Your task to perform on an android device: turn pop-ups on in chrome Image 0: 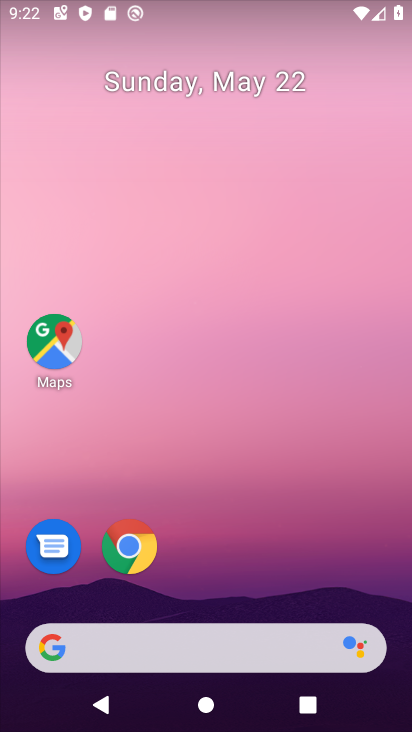
Step 0: drag from (184, 601) to (200, 251)
Your task to perform on an android device: turn pop-ups on in chrome Image 1: 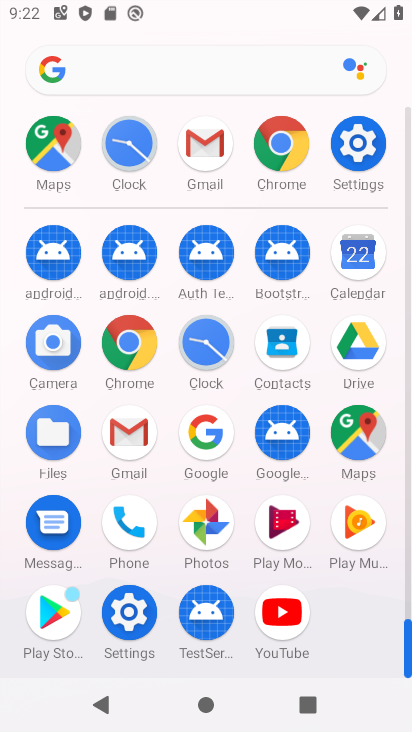
Step 1: drag from (247, 672) to (235, 344)
Your task to perform on an android device: turn pop-ups on in chrome Image 2: 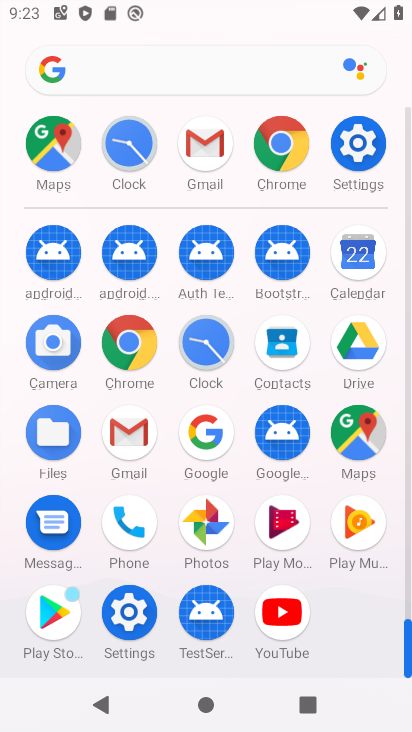
Step 2: click (119, 344)
Your task to perform on an android device: turn pop-ups on in chrome Image 3: 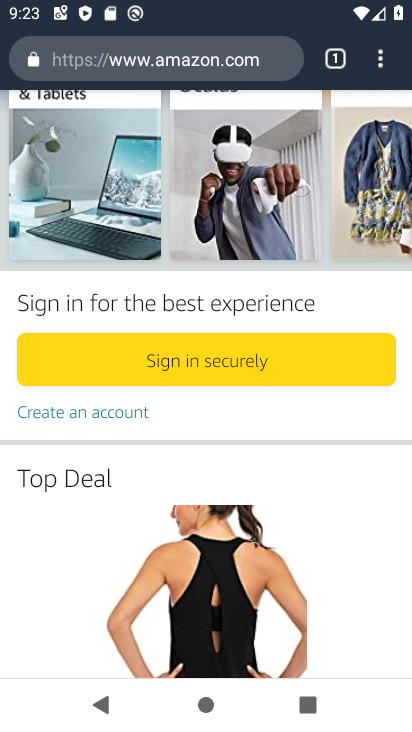
Step 3: click (378, 54)
Your task to perform on an android device: turn pop-ups on in chrome Image 4: 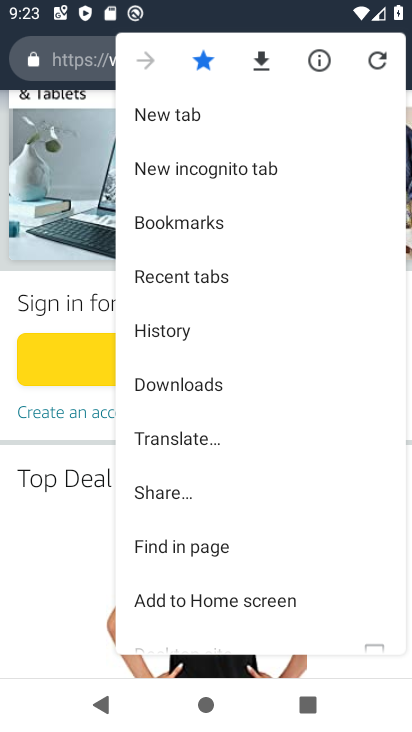
Step 4: drag from (267, 613) to (295, 264)
Your task to perform on an android device: turn pop-ups on in chrome Image 5: 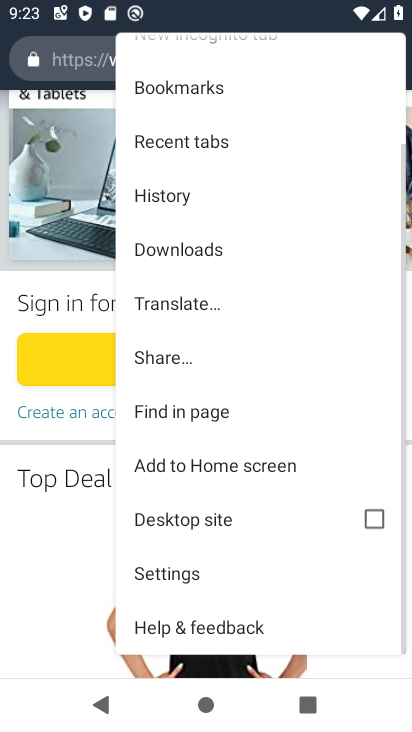
Step 5: click (181, 575)
Your task to perform on an android device: turn pop-ups on in chrome Image 6: 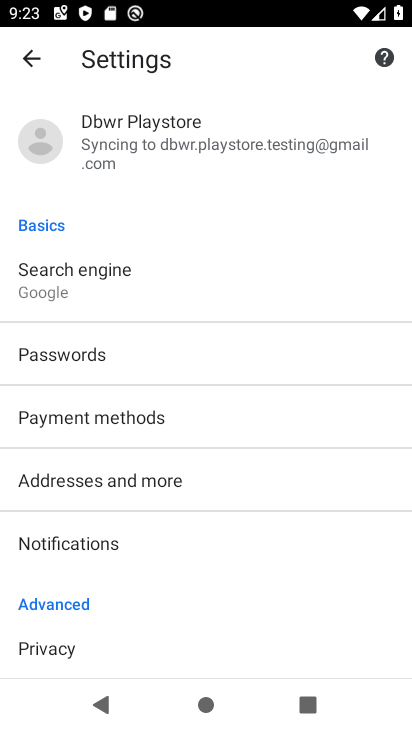
Step 6: drag from (222, 583) to (342, 147)
Your task to perform on an android device: turn pop-ups on in chrome Image 7: 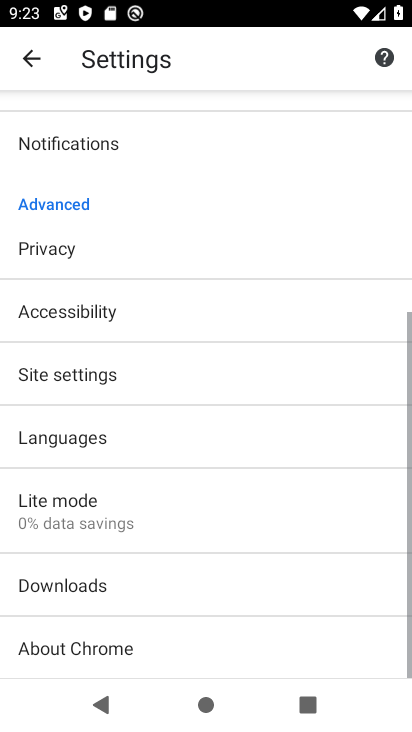
Step 7: click (124, 370)
Your task to perform on an android device: turn pop-ups on in chrome Image 8: 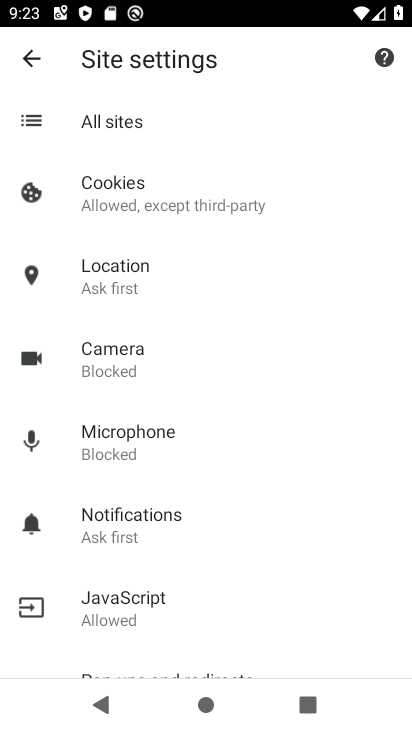
Step 8: drag from (170, 616) to (234, 93)
Your task to perform on an android device: turn pop-ups on in chrome Image 9: 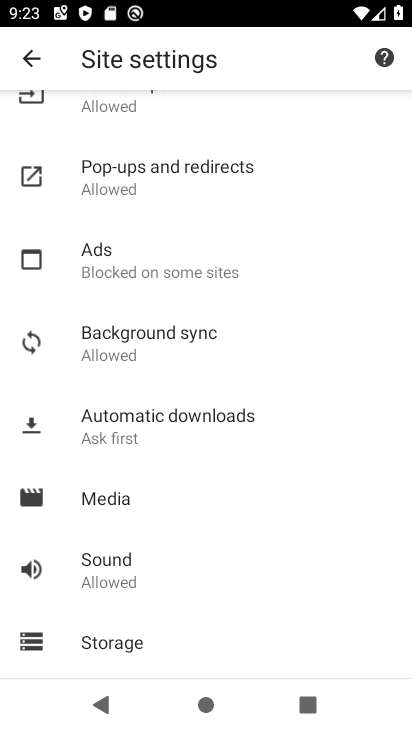
Step 9: click (176, 164)
Your task to perform on an android device: turn pop-ups on in chrome Image 10: 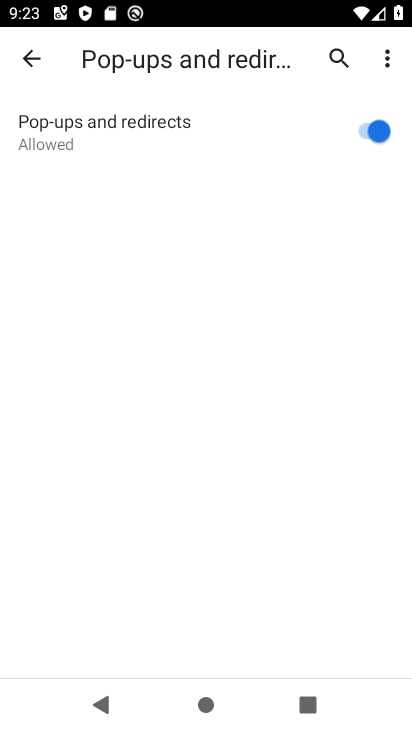
Step 10: task complete